Your task to perform on an android device: remove spam from my inbox in the gmail app Image 0: 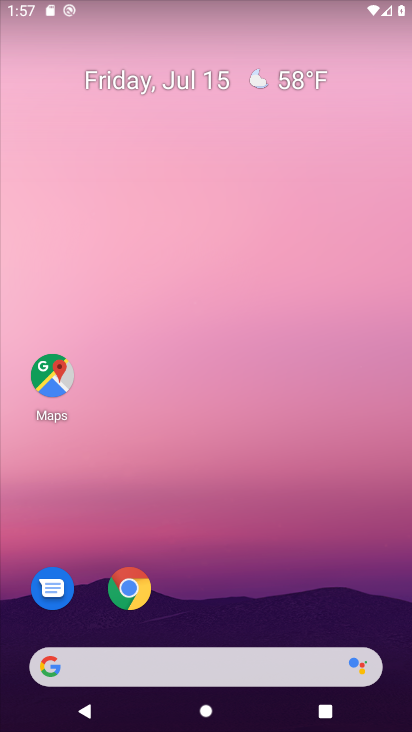
Step 0: drag from (314, 586) to (329, 261)
Your task to perform on an android device: remove spam from my inbox in the gmail app Image 1: 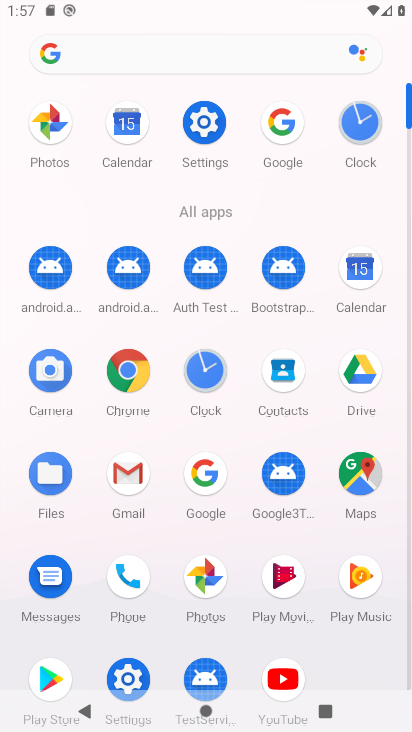
Step 1: click (129, 473)
Your task to perform on an android device: remove spam from my inbox in the gmail app Image 2: 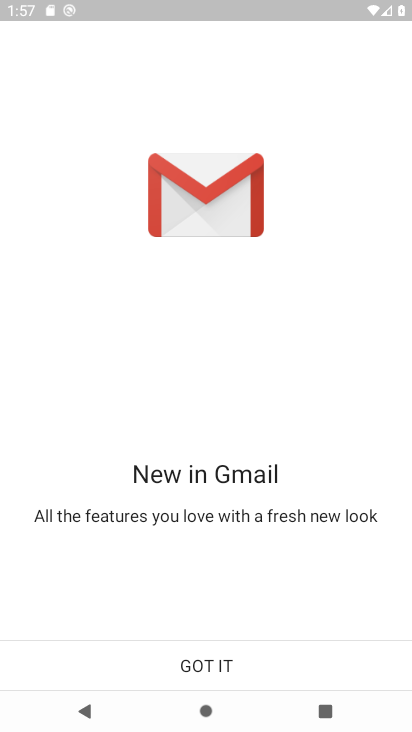
Step 2: click (194, 652)
Your task to perform on an android device: remove spam from my inbox in the gmail app Image 3: 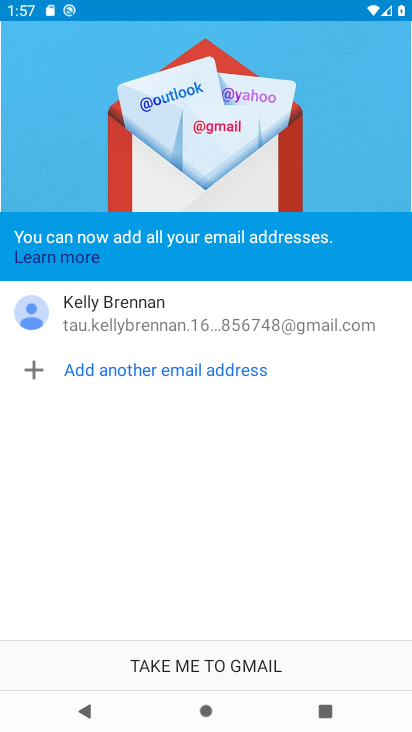
Step 3: click (141, 657)
Your task to perform on an android device: remove spam from my inbox in the gmail app Image 4: 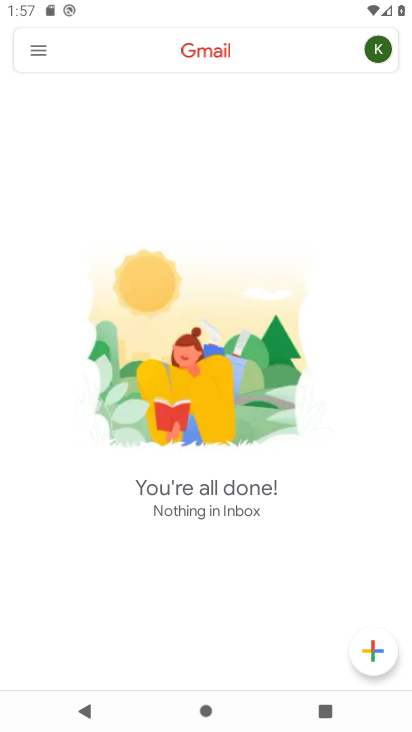
Step 4: click (36, 52)
Your task to perform on an android device: remove spam from my inbox in the gmail app Image 5: 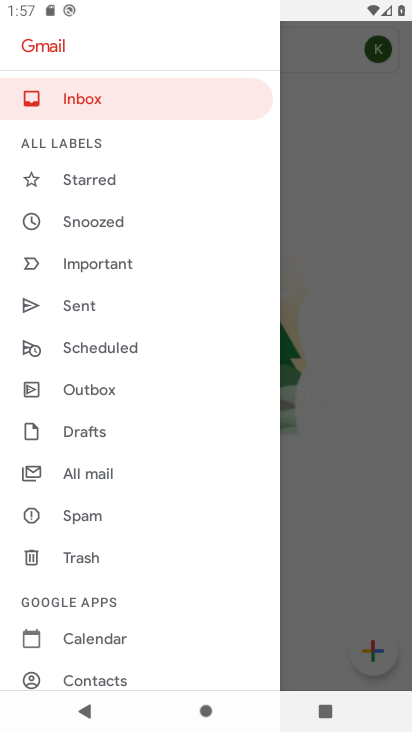
Step 5: click (86, 524)
Your task to perform on an android device: remove spam from my inbox in the gmail app Image 6: 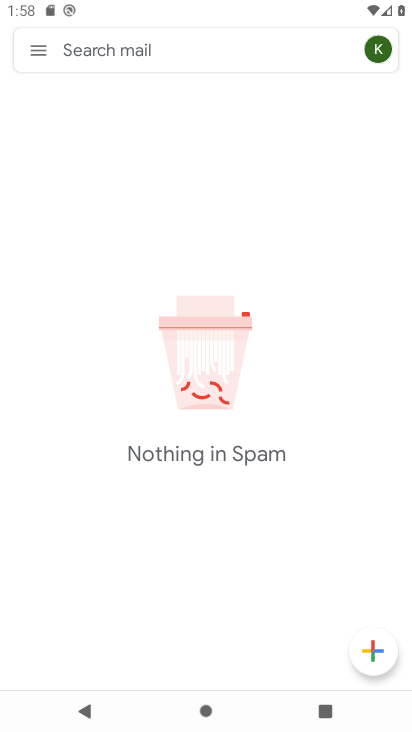
Step 6: task complete